Your task to perform on an android device: Open eBay Image 0: 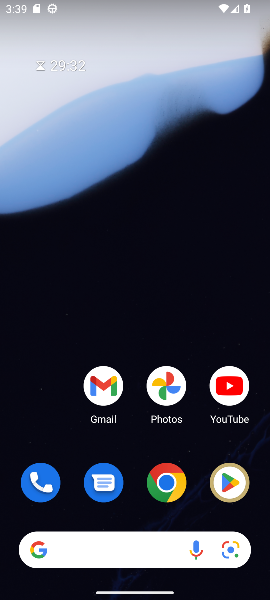
Step 0: press home button
Your task to perform on an android device: Open eBay Image 1: 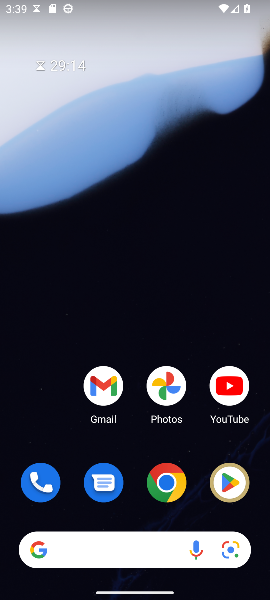
Step 1: click (160, 481)
Your task to perform on an android device: Open eBay Image 2: 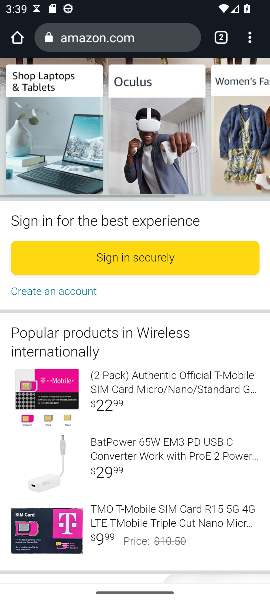
Step 2: click (222, 27)
Your task to perform on an android device: Open eBay Image 3: 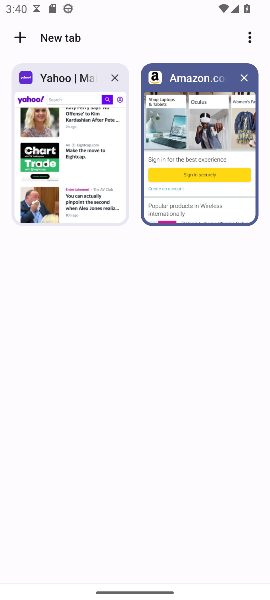
Step 3: click (12, 33)
Your task to perform on an android device: Open eBay Image 4: 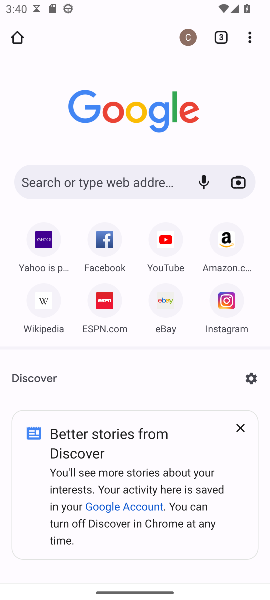
Step 4: click (164, 295)
Your task to perform on an android device: Open eBay Image 5: 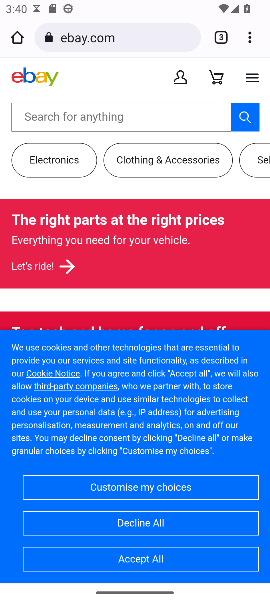
Step 5: click (132, 560)
Your task to perform on an android device: Open eBay Image 6: 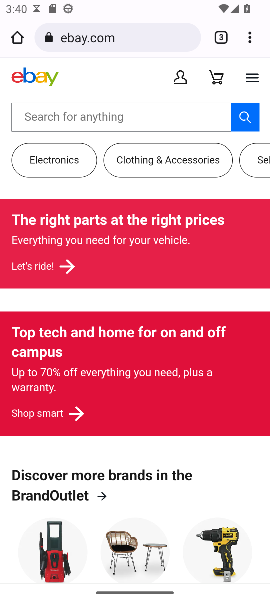
Step 6: task complete